Your task to perform on an android device: delete browsing data in the chrome app Image 0: 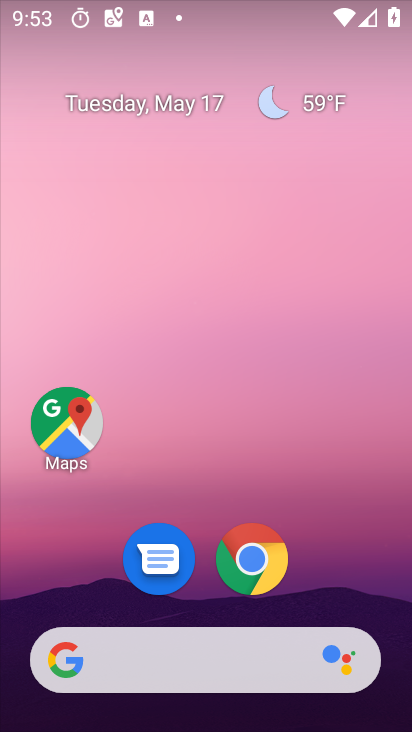
Step 0: drag from (137, 622) to (247, 102)
Your task to perform on an android device: delete browsing data in the chrome app Image 1: 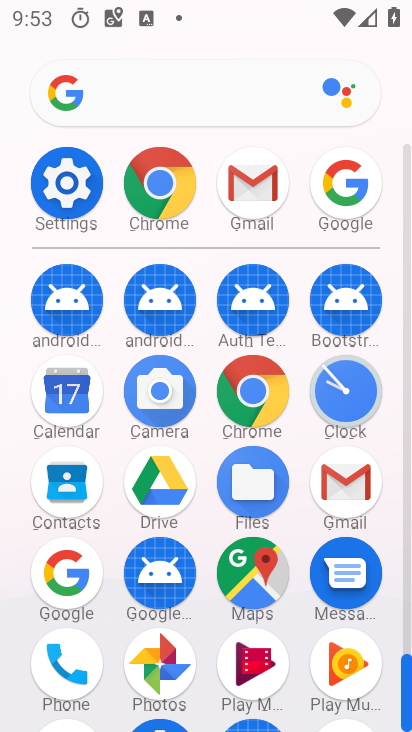
Step 1: click (253, 383)
Your task to perform on an android device: delete browsing data in the chrome app Image 2: 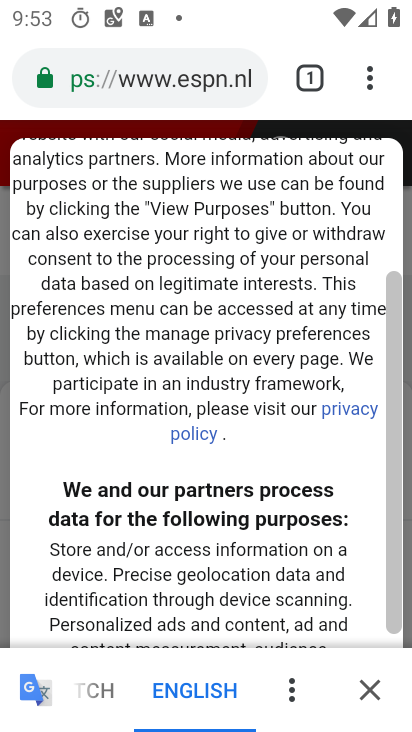
Step 2: click (380, 80)
Your task to perform on an android device: delete browsing data in the chrome app Image 3: 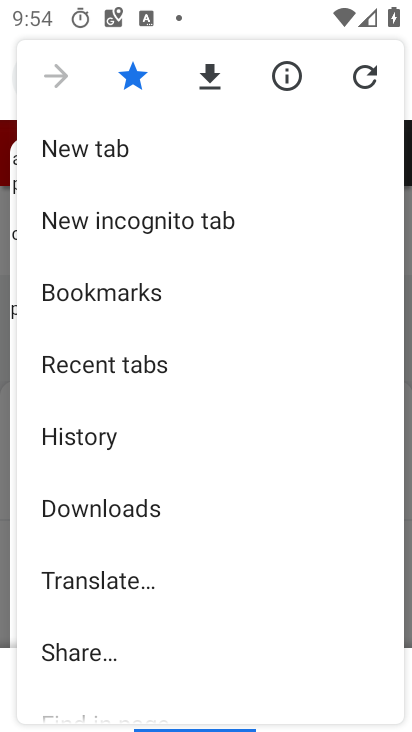
Step 3: click (123, 439)
Your task to perform on an android device: delete browsing data in the chrome app Image 4: 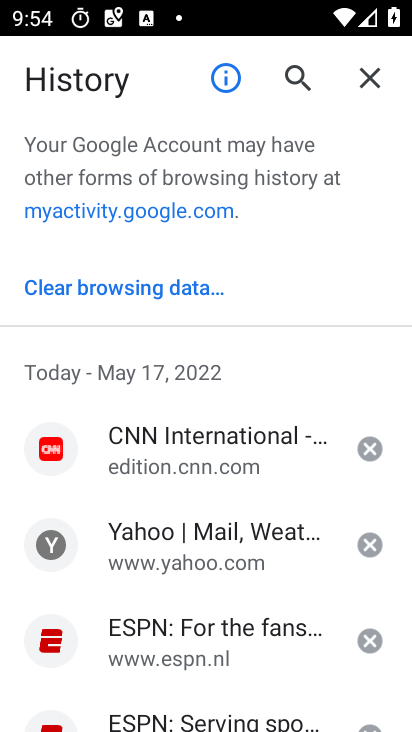
Step 4: click (175, 299)
Your task to perform on an android device: delete browsing data in the chrome app Image 5: 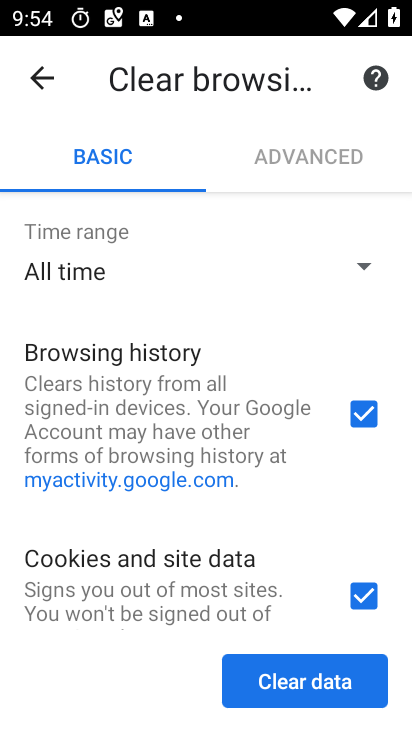
Step 5: click (298, 667)
Your task to perform on an android device: delete browsing data in the chrome app Image 6: 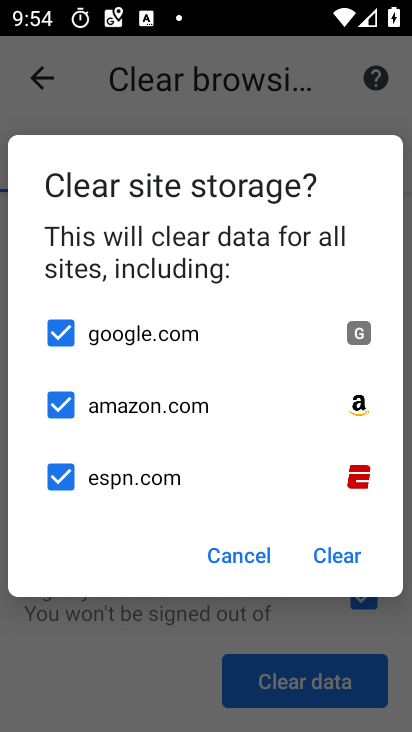
Step 6: click (352, 562)
Your task to perform on an android device: delete browsing data in the chrome app Image 7: 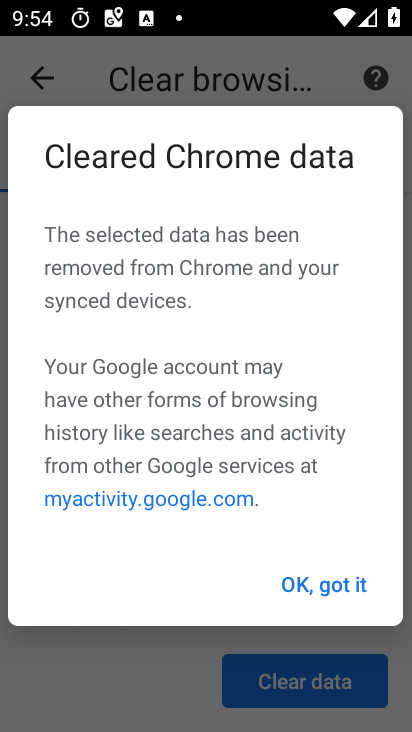
Step 7: click (316, 587)
Your task to perform on an android device: delete browsing data in the chrome app Image 8: 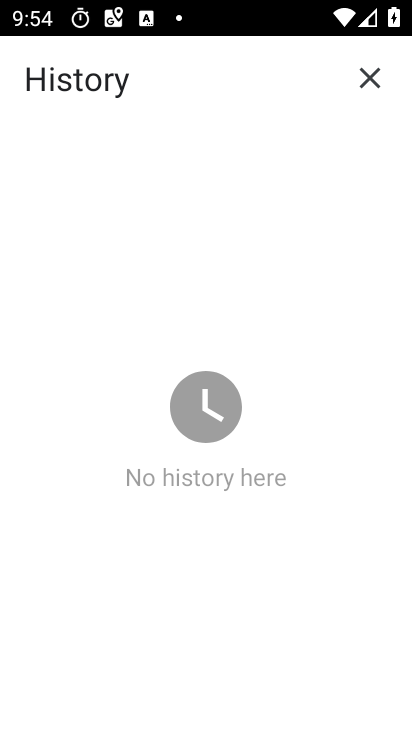
Step 8: task complete